Your task to perform on an android device: toggle improve location accuracy Image 0: 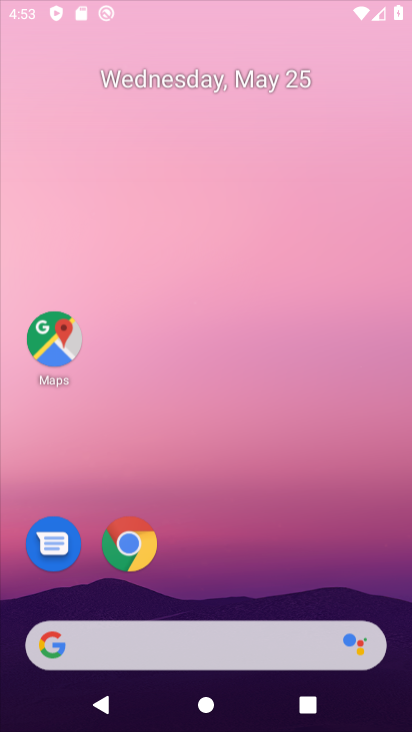
Step 0: click (231, 23)
Your task to perform on an android device: toggle improve location accuracy Image 1: 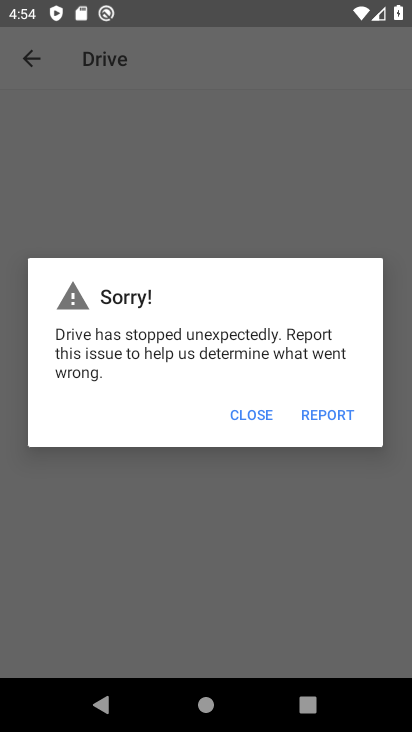
Step 1: press home button
Your task to perform on an android device: toggle improve location accuracy Image 2: 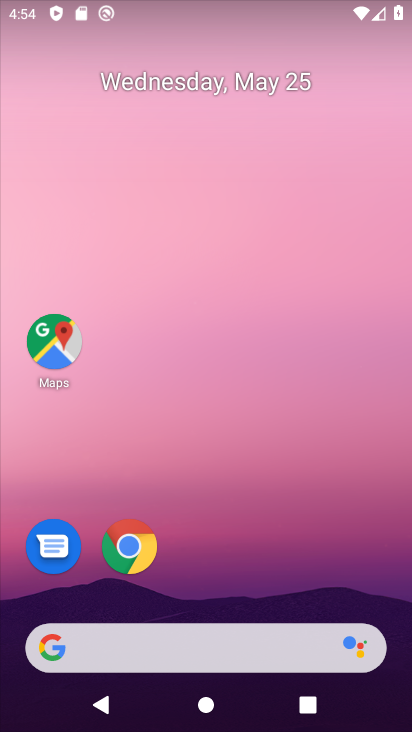
Step 2: click (65, 331)
Your task to perform on an android device: toggle improve location accuracy Image 3: 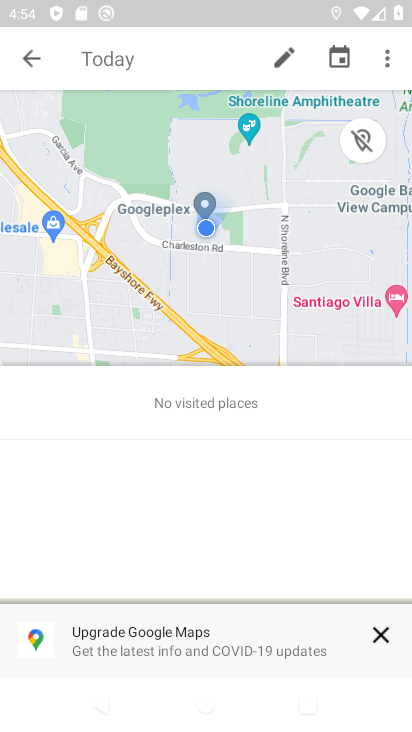
Step 3: press home button
Your task to perform on an android device: toggle improve location accuracy Image 4: 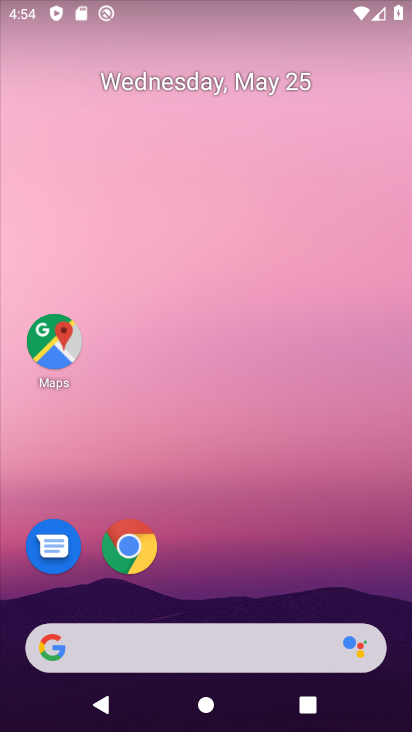
Step 4: click (31, 338)
Your task to perform on an android device: toggle improve location accuracy Image 5: 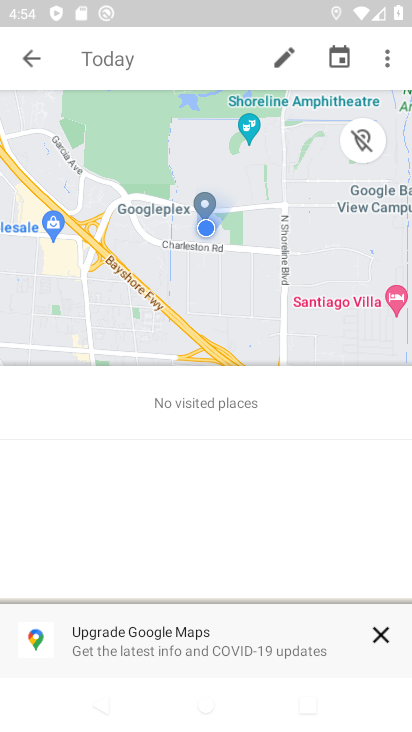
Step 5: click (31, 59)
Your task to perform on an android device: toggle improve location accuracy Image 6: 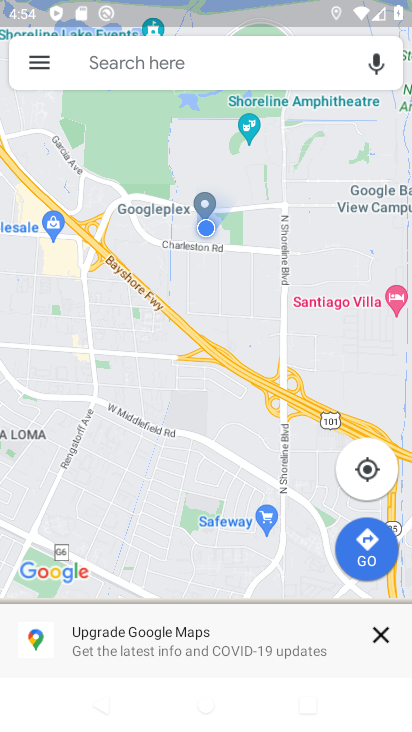
Step 6: click (50, 60)
Your task to perform on an android device: toggle improve location accuracy Image 7: 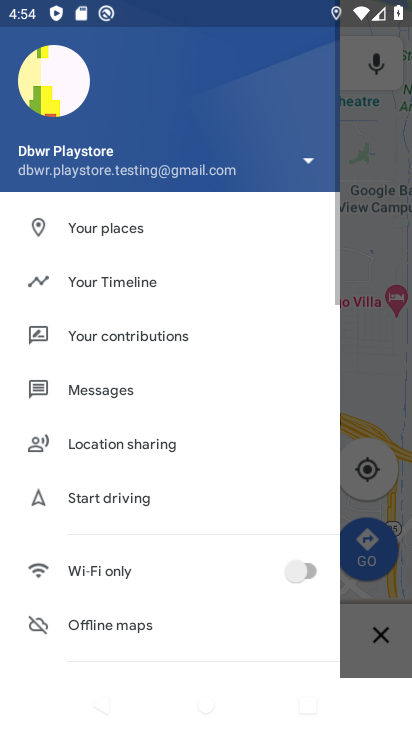
Step 7: drag from (165, 552) to (177, 16)
Your task to perform on an android device: toggle improve location accuracy Image 8: 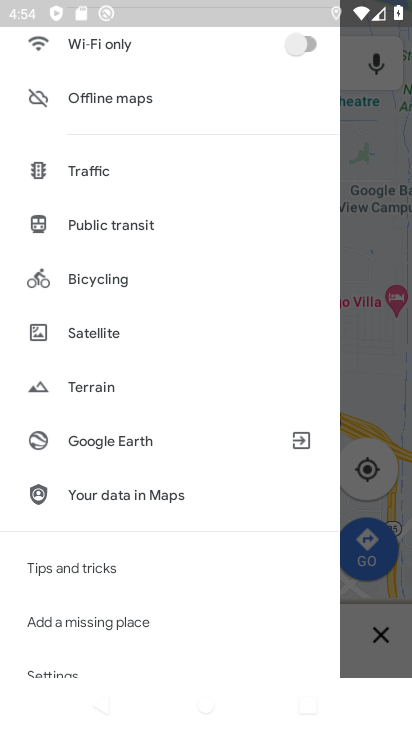
Step 8: click (72, 671)
Your task to perform on an android device: toggle improve location accuracy Image 9: 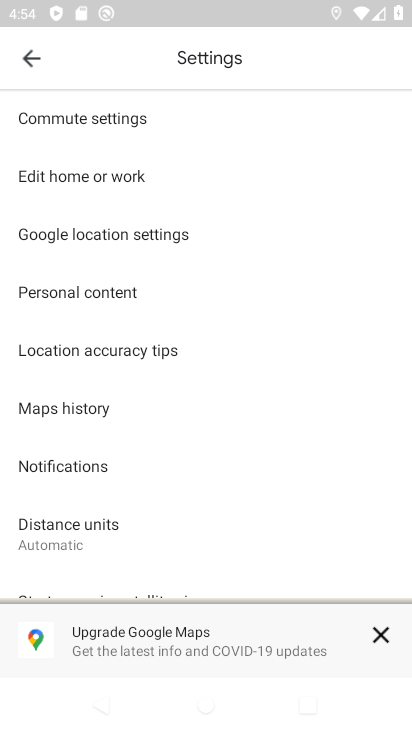
Step 9: click (175, 236)
Your task to perform on an android device: toggle improve location accuracy Image 10: 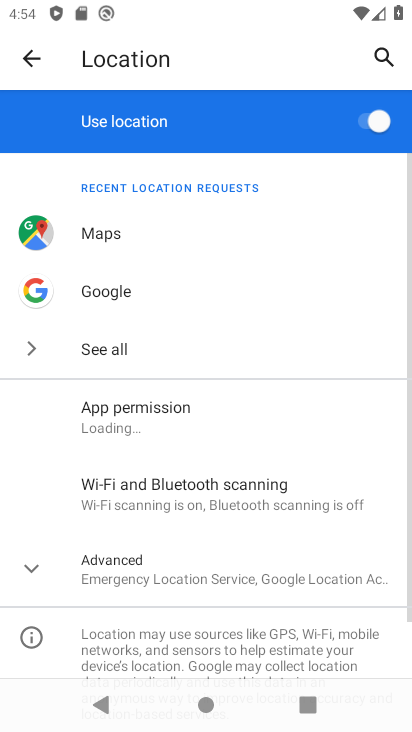
Step 10: click (250, 568)
Your task to perform on an android device: toggle improve location accuracy Image 11: 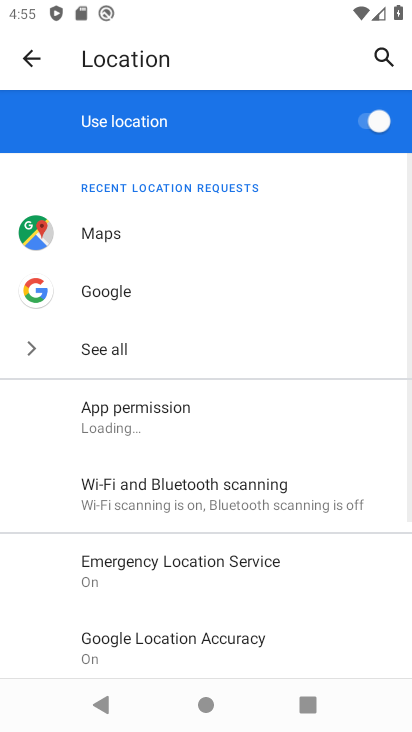
Step 11: click (235, 646)
Your task to perform on an android device: toggle improve location accuracy Image 12: 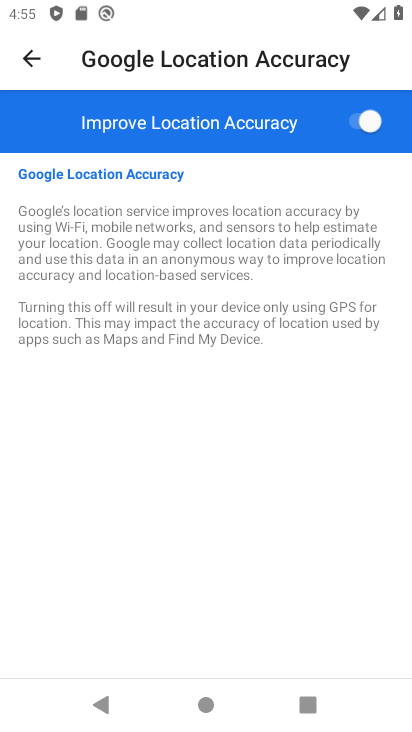
Step 12: click (371, 119)
Your task to perform on an android device: toggle improve location accuracy Image 13: 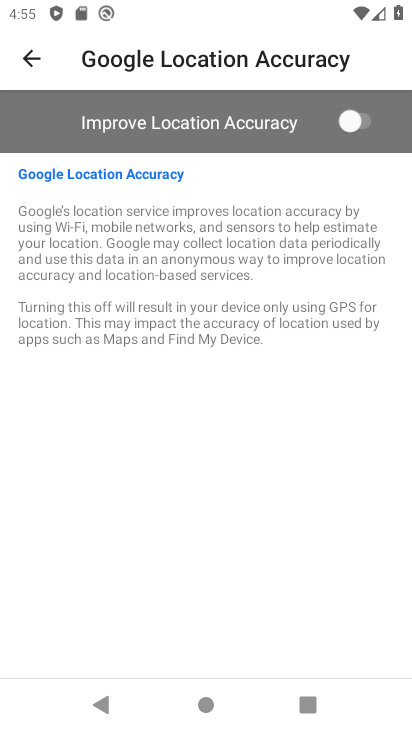
Step 13: task complete